Your task to perform on an android device: turn off improve location accuracy Image 0: 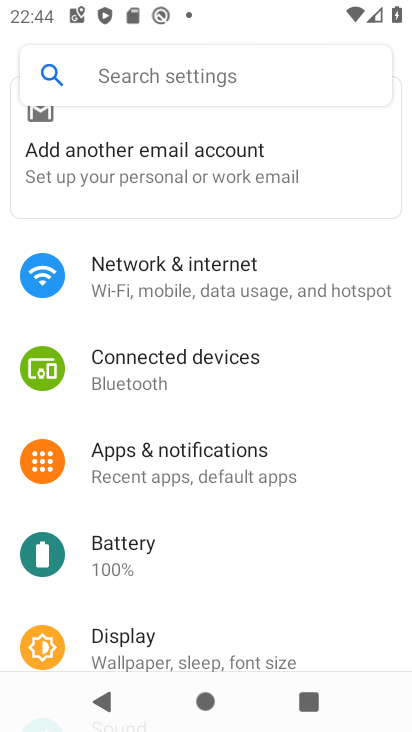
Step 0: press home button
Your task to perform on an android device: turn off improve location accuracy Image 1: 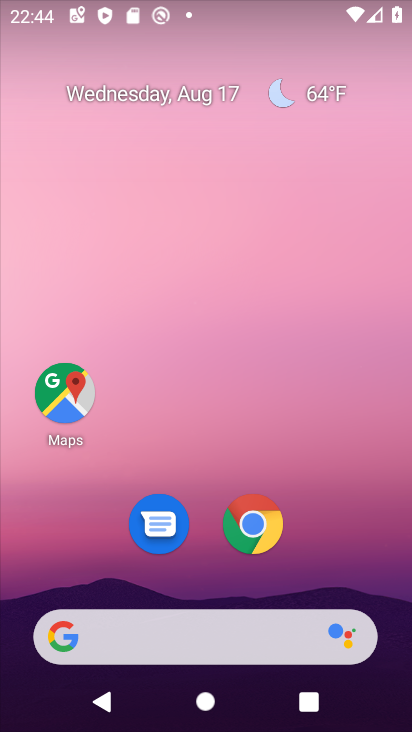
Step 1: drag from (319, 516) to (368, 17)
Your task to perform on an android device: turn off improve location accuracy Image 2: 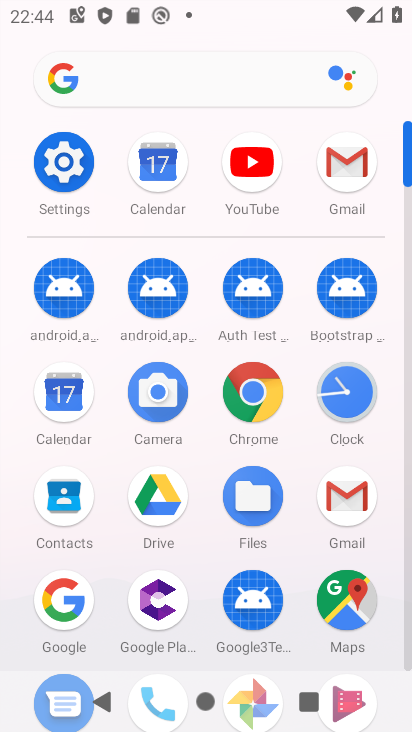
Step 2: click (71, 161)
Your task to perform on an android device: turn off improve location accuracy Image 3: 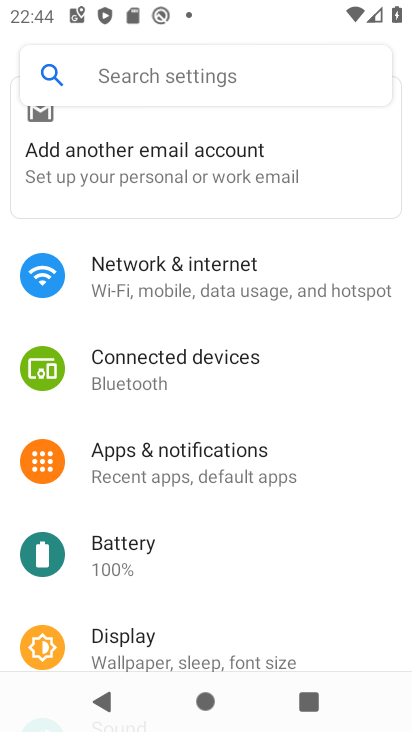
Step 3: drag from (208, 586) to (233, 0)
Your task to perform on an android device: turn off improve location accuracy Image 4: 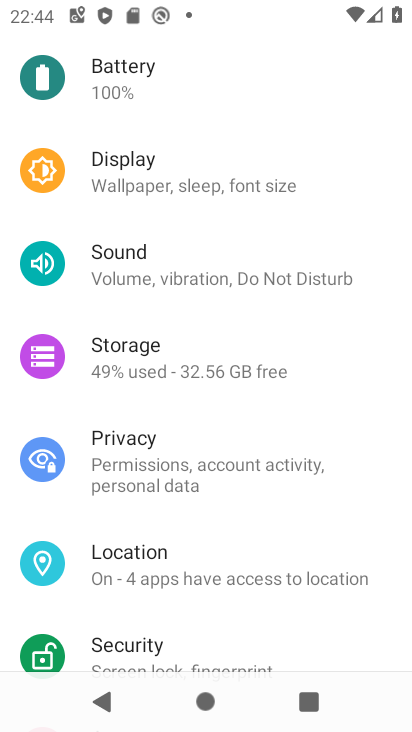
Step 4: click (200, 572)
Your task to perform on an android device: turn off improve location accuracy Image 5: 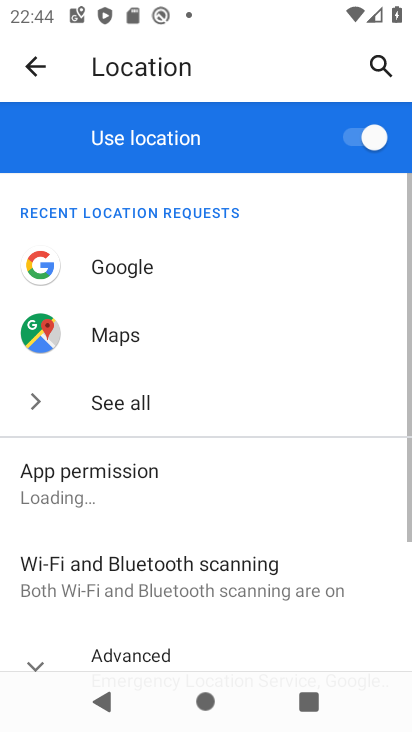
Step 5: drag from (208, 526) to (223, 189)
Your task to perform on an android device: turn off improve location accuracy Image 6: 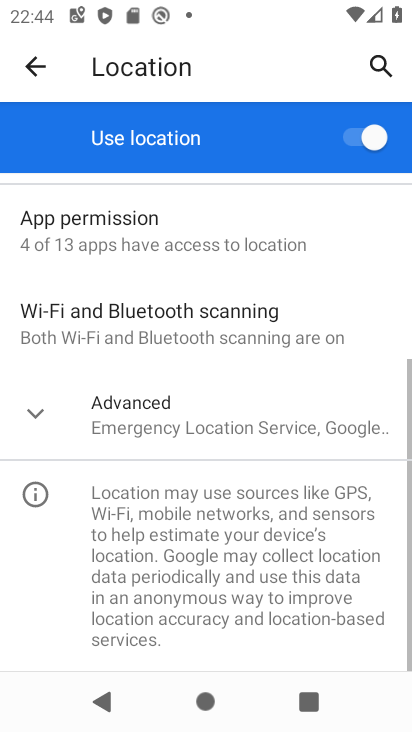
Step 6: click (33, 411)
Your task to perform on an android device: turn off improve location accuracy Image 7: 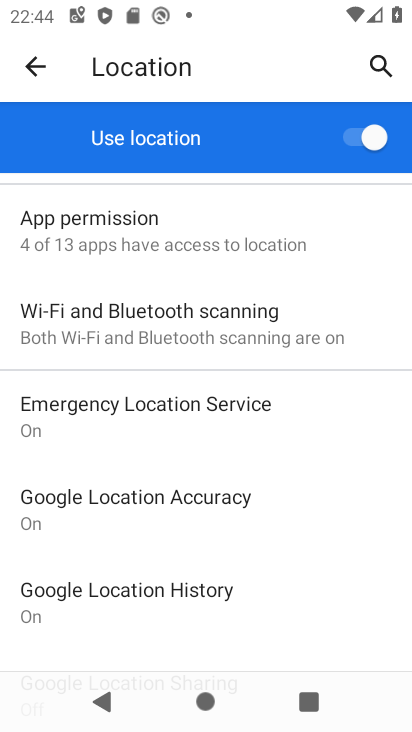
Step 7: click (193, 504)
Your task to perform on an android device: turn off improve location accuracy Image 8: 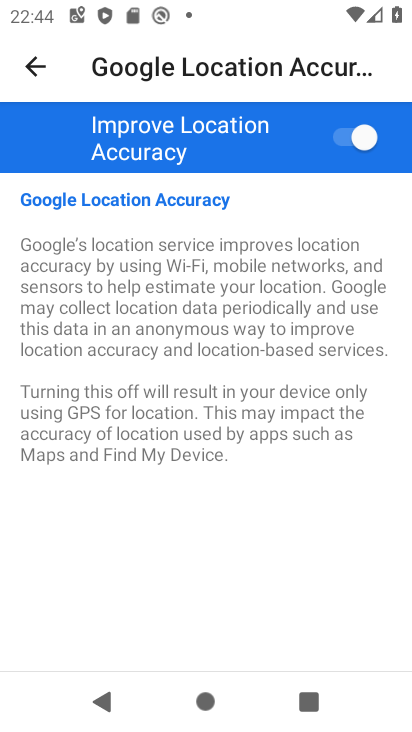
Step 8: click (369, 142)
Your task to perform on an android device: turn off improve location accuracy Image 9: 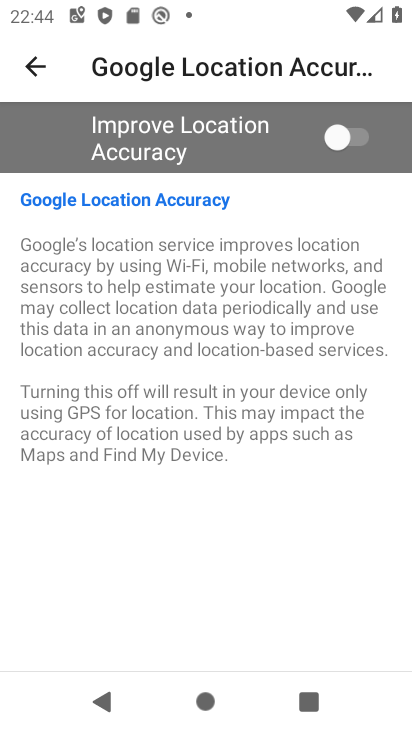
Step 9: task complete